Your task to perform on an android device: Go to settings Image 0: 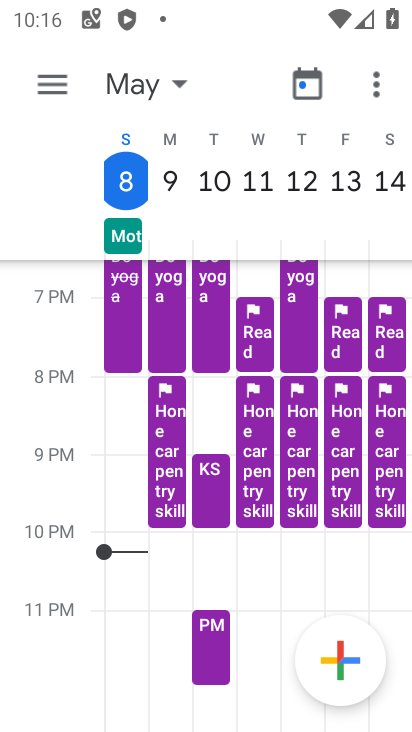
Step 0: press home button
Your task to perform on an android device: Go to settings Image 1: 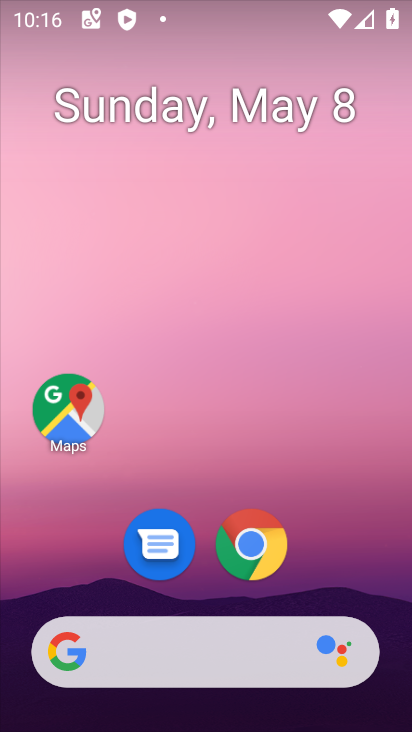
Step 1: drag from (315, 595) to (233, 156)
Your task to perform on an android device: Go to settings Image 2: 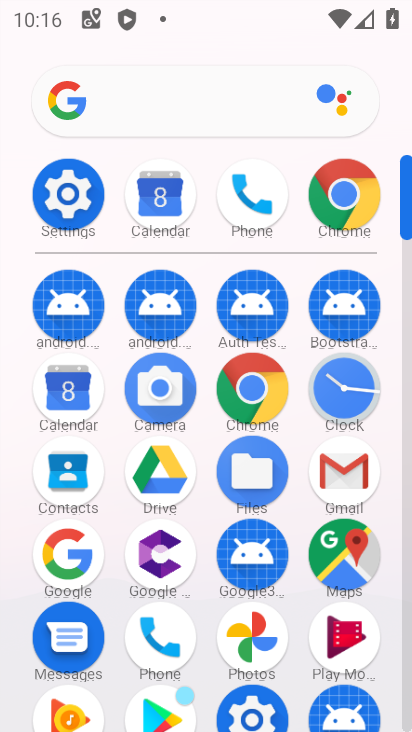
Step 2: click (83, 196)
Your task to perform on an android device: Go to settings Image 3: 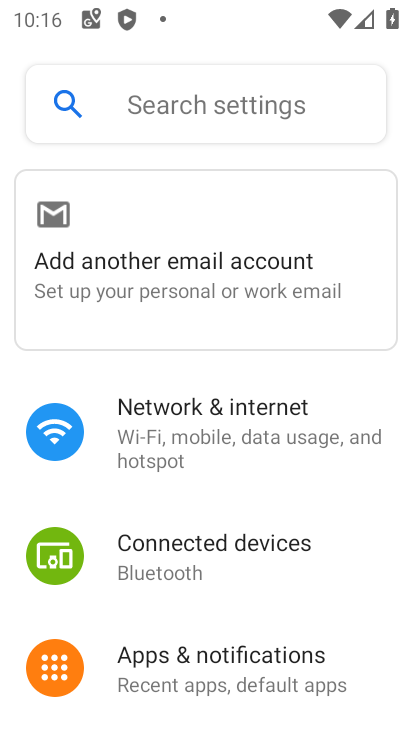
Step 3: task complete